Your task to perform on an android device: toggle wifi Image 0: 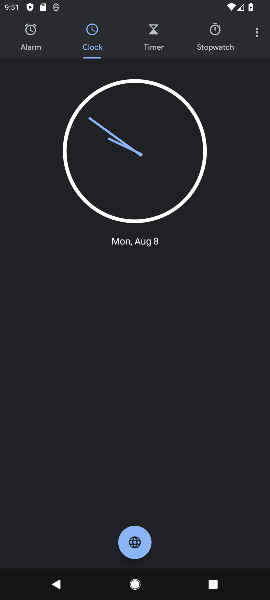
Step 0: press home button
Your task to perform on an android device: toggle wifi Image 1: 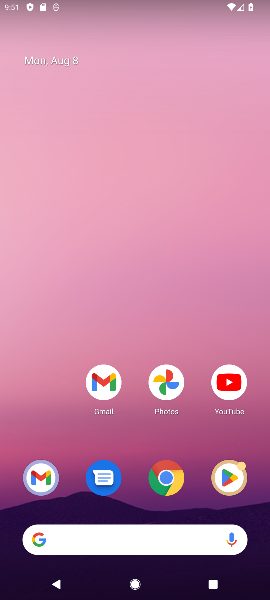
Step 1: drag from (130, 528) to (88, 5)
Your task to perform on an android device: toggle wifi Image 2: 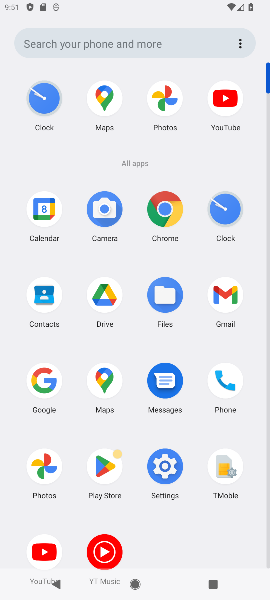
Step 2: click (165, 461)
Your task to perform on an android device: toggle wifi Image 3: 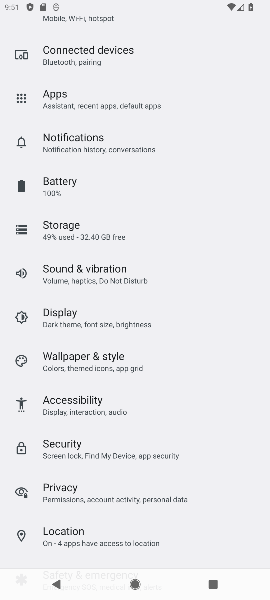
Step 3: drag from (37, 59) to (54, 411)
Your task to perform on an android device: toggle wifi Image 4: 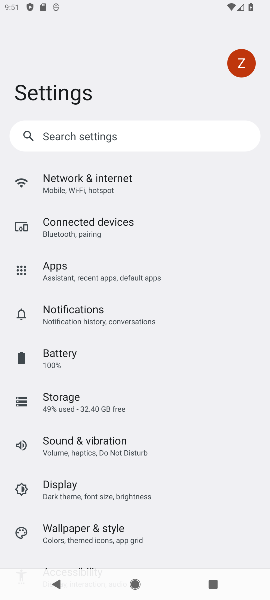
Step 4: click (85, 169)
Your task to perform on an android device: toggle wifi Image 5: 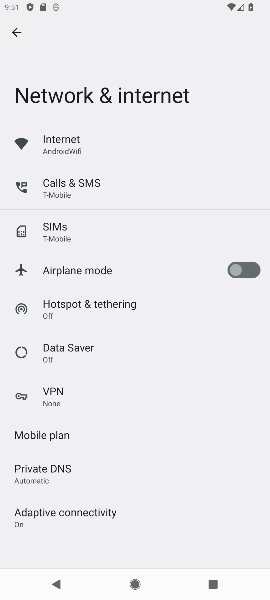
Step 5: click (84, 155)
Your task to perform on an android device: toggle wifi Image 6: 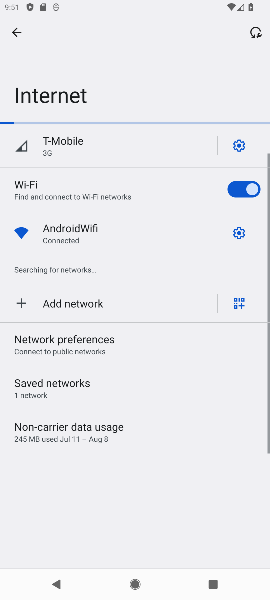
Step 6: task complete